Your task to perform on an android device: Is it going to rain this weekend? Image 0: 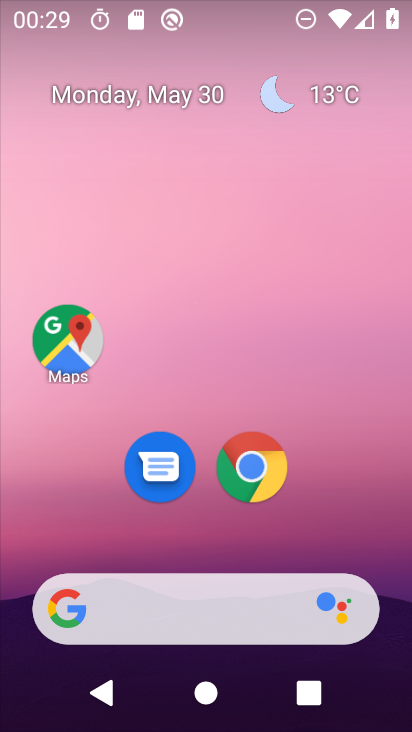
Step 0: drag from (204, 552) to (215, 217)
Your task to perform on an android device: Is it going to rain this weekend? Image 1: 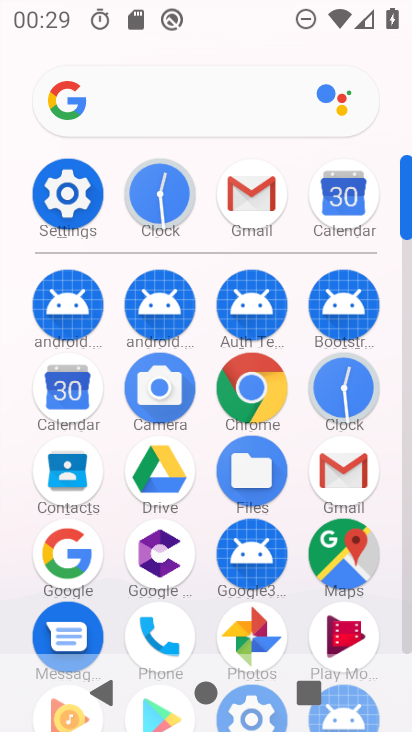
Step 1: click (77, 542)
Your task to perform on an android device: Is it going to rain this weekend? Image 2: 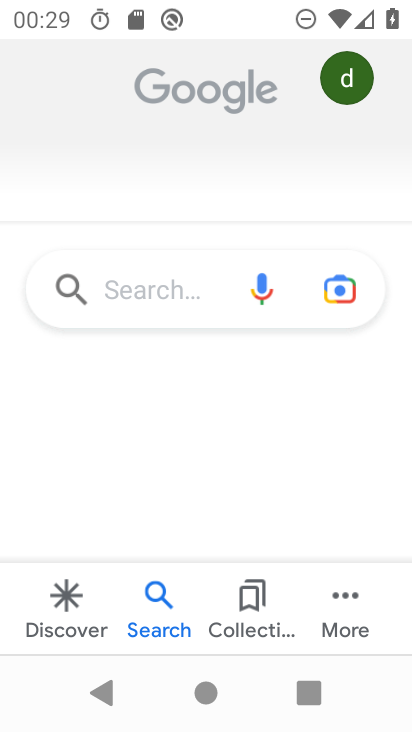
Step 2: click (132, 269)
Your task to perform on an android device: Is it going to rain this weekend? Image 3: 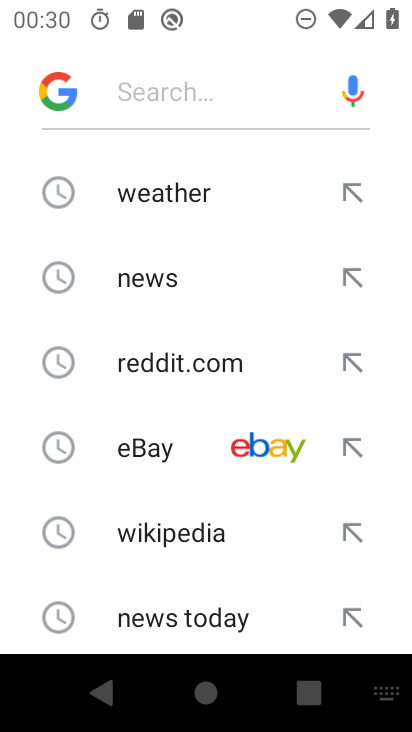
Step 3: click (189, 202)
Your task to perform on an android device: Is it going to rain this weekend? Image 4: 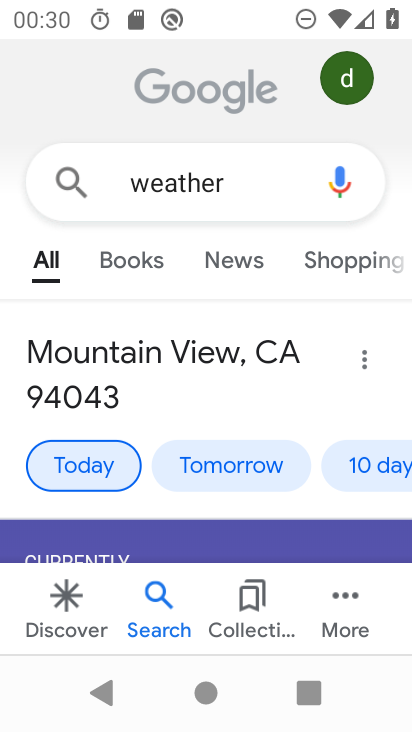
Step 4: drag from (193, 426) to (193, 274)
Your task to perform on an android device: Is it going to rain this weekend? Image 5: 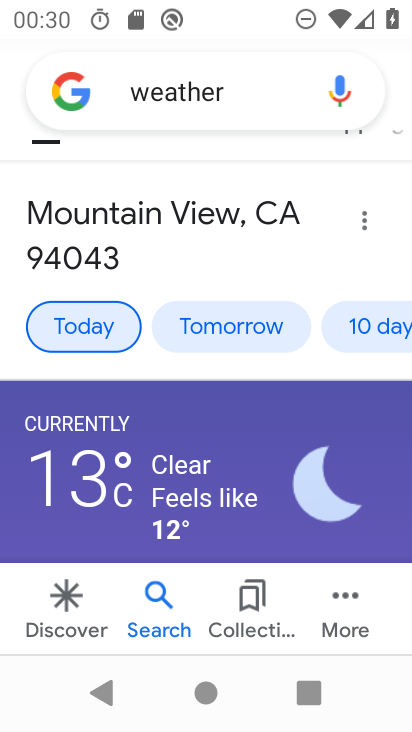
Step 5: click (356, 317)
Your task to perform on an android device: Is it going to rain this weekend? Image 6: 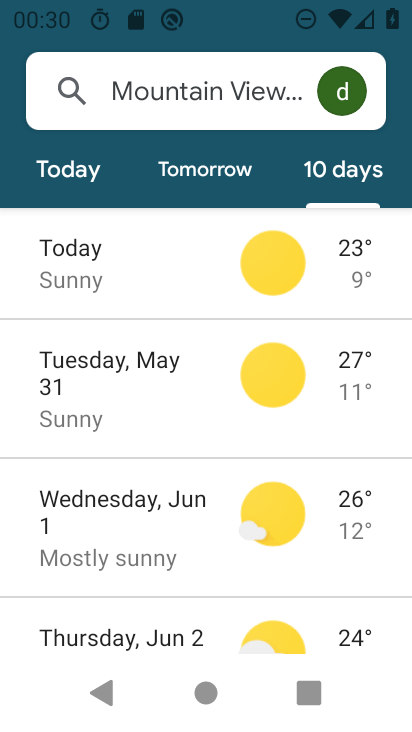
Step 6: task complete